Your task to perform on an android device: set default search engine in the chrome app Image 0: 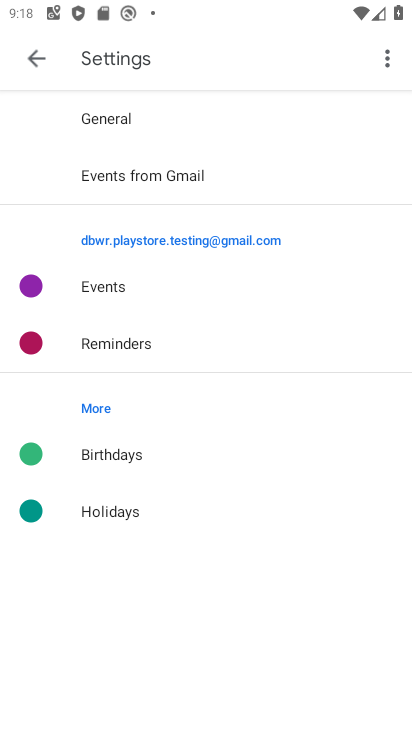
Step 0: press home button
Your task to perform on an android device: set default search engine in the chrome app Image 1: 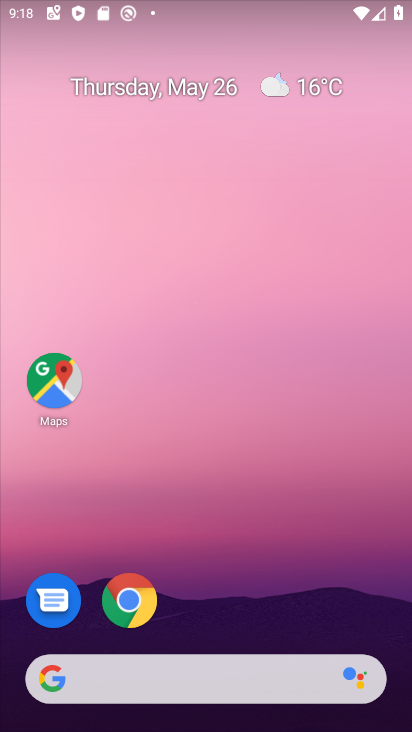
Step 1: drag from (255, 600) to (269, 107)
Your task to perform on an android device: set default search engine in the chrome app Image 2: 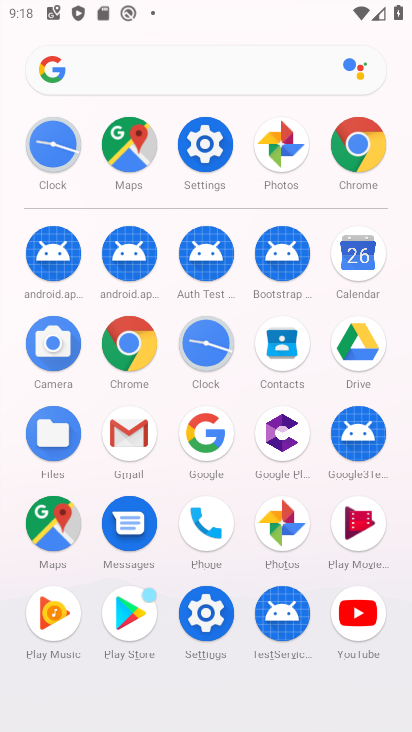
Step 2: click (357, 144)
Your task to perform on an android device: set default search engine in the chrome app Image 3: 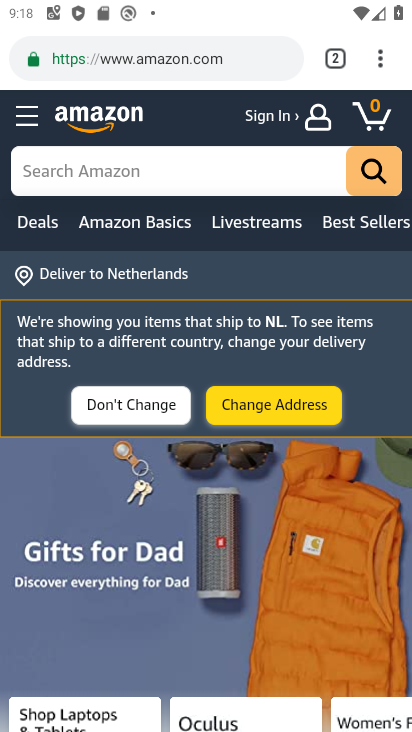
Step 3: click (392, 49)
Your task to perform on an android device: set default search engine in the chrome app Image 4: 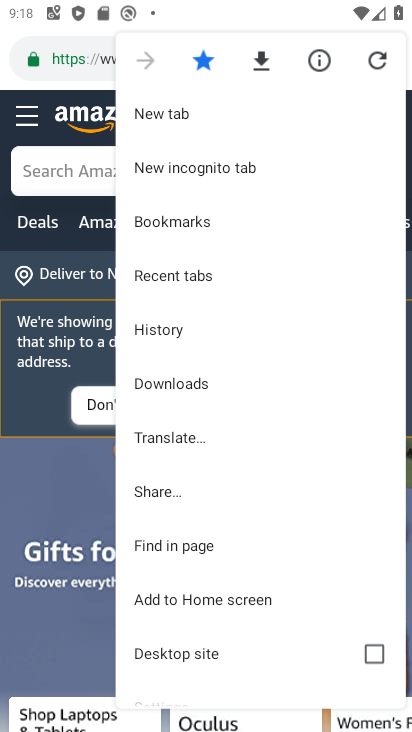
Step 4: drag from (185, 626) to (244, 327)
Your task to perform on an android device: set default search engine in the chrome app Image 5: 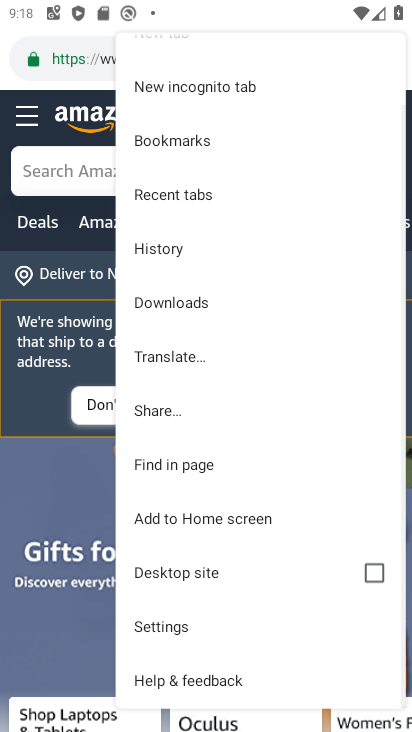
Step 5: click (228, 639)
Your task to perform on an android device: set default search engine in the chrome app Image 6: 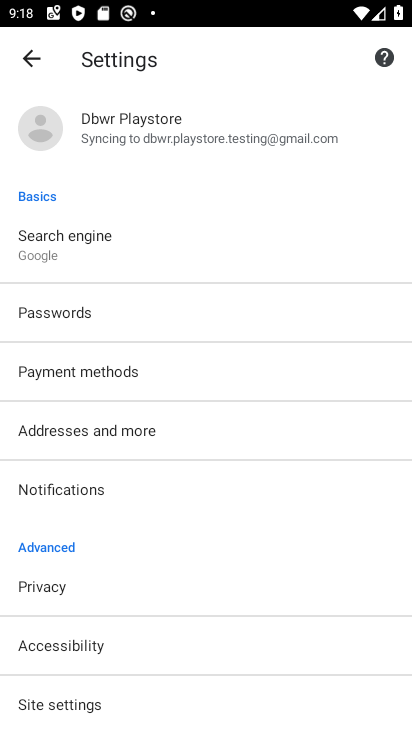
Step 6: click (84, 242)
Your task to perform on an android device: set default search engine in the chrome app Image 7: 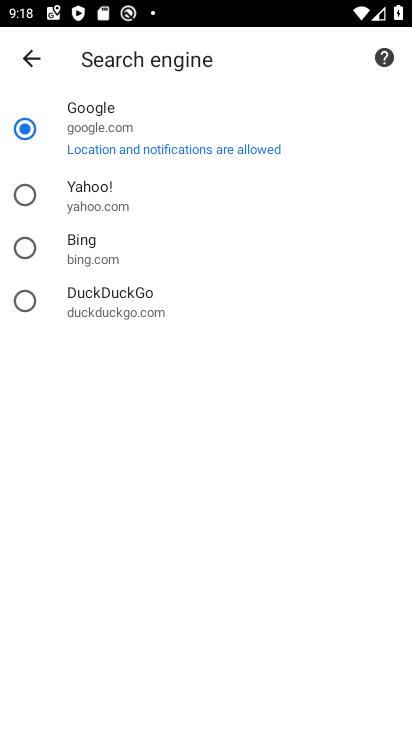
Step 7: click (98, 258)
Your task to perform on an android device: set default search engine in the chrome app Image 8: 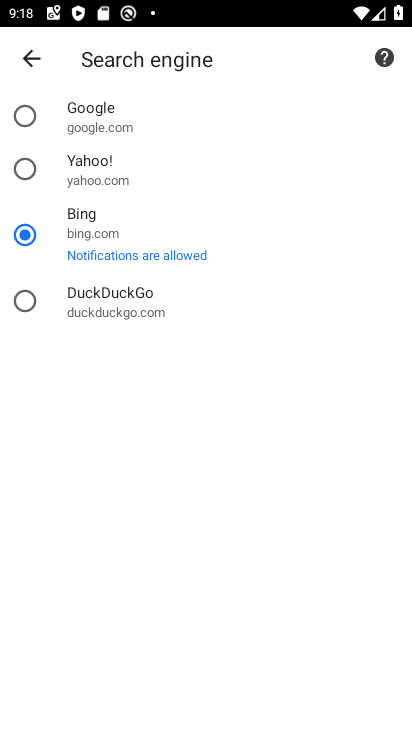
Step 8: task complete